Your task to perform on an android device: Open the phone app and click the voicemail tab. Image 0: 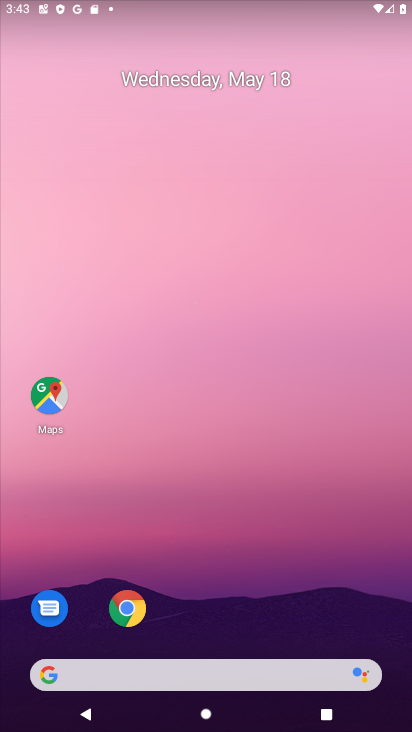
Step 0: drag from (270, 446) to (297, 190)
Your task to perform on an android device: Open the phone app and click the voicemail tab. Image 1: 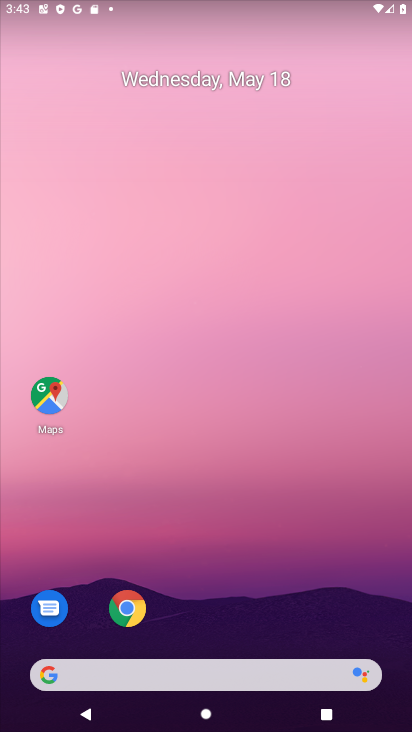
Step 1: drag from (200, 434) to (186, 163)
Your task to perform on an android device: Open the phone app and click the voicemail tab. Image 2: 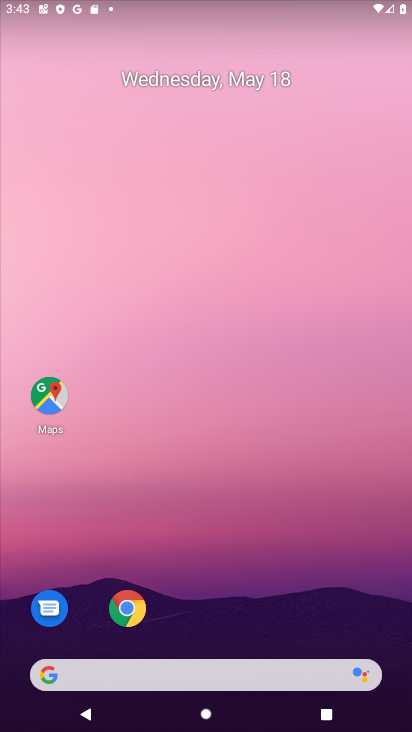
Step 2: drag from (201, 528) to (276, 58)
Your task to perform on an android device: Open the phone app and click the voicemail tab. Image 3: 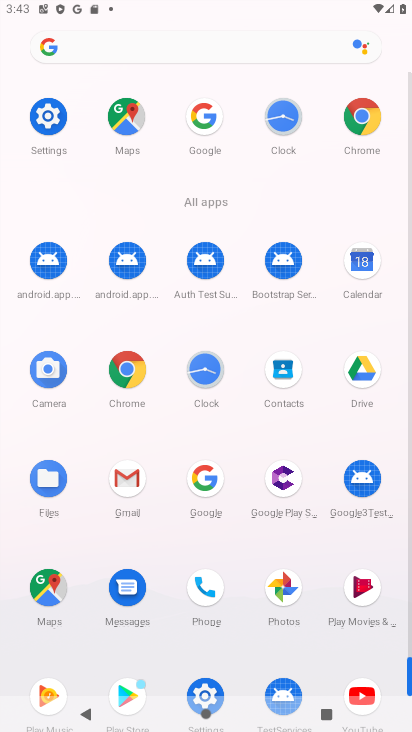
Step 3: click (204, 598)
Your task to perform on an android device: Open the phone app and click the voicemail tab. Image 4: 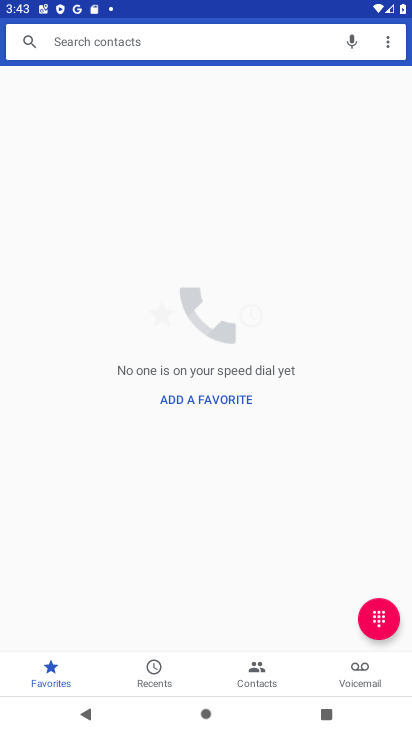
Step 4: click (356, 673)
Your task to perform on an android device: Open the phone app and click the voicemail tab. Image 5: 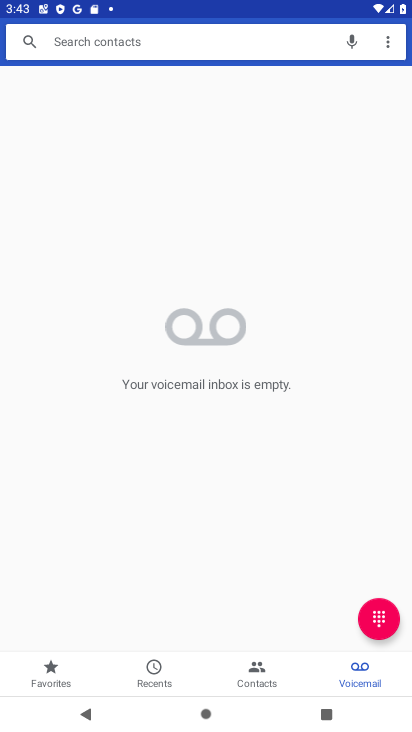
Step 5: task complete